Your task to perform on an android device: open a bookmark in the chrome app Image 0: 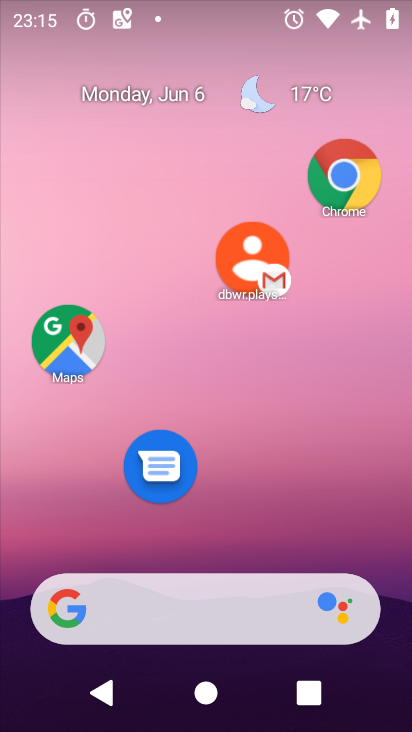
Step 0: drag from (208, 500) to (203, 52)
Your task to perform on an android device: open a bookmark in the chrome app Image 1: 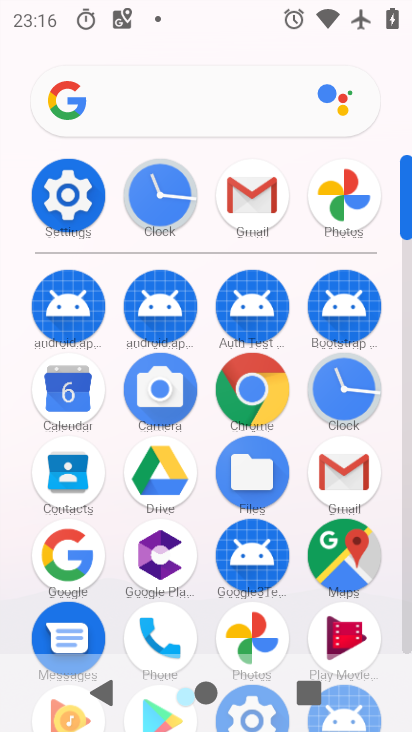
Step 1: click (259, 392)
Your task to perform on an android device: open a bookmark in the chrome app Image 2: 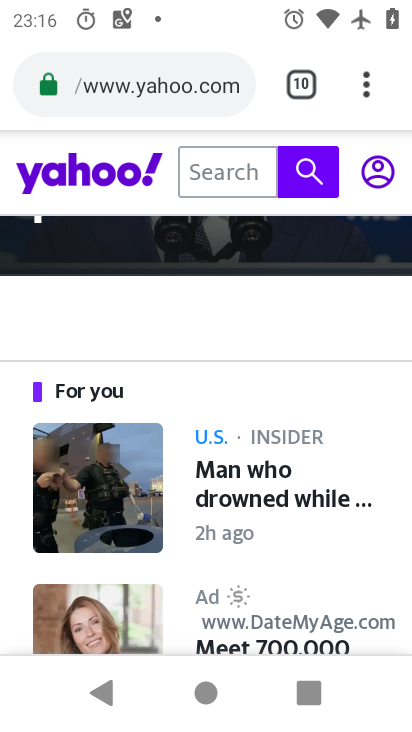
Step 2: task complete